Your task to perform on an android device: Open Yahoo.com Image 0: 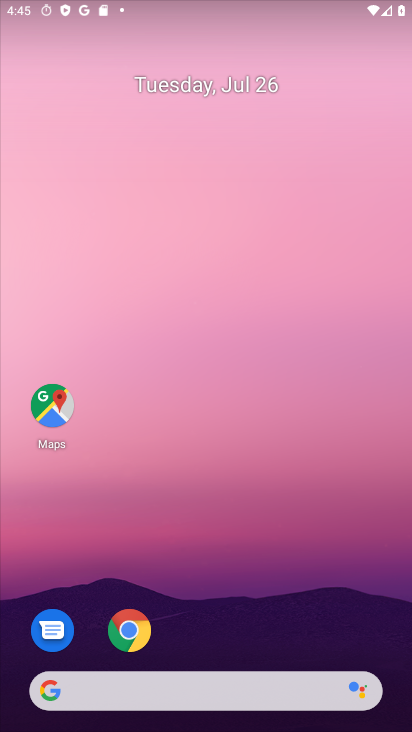
Step 0: drag from (305, 582) to (224, 50)
Your task to perform on an android device: Open Yahoo.com Image 1: 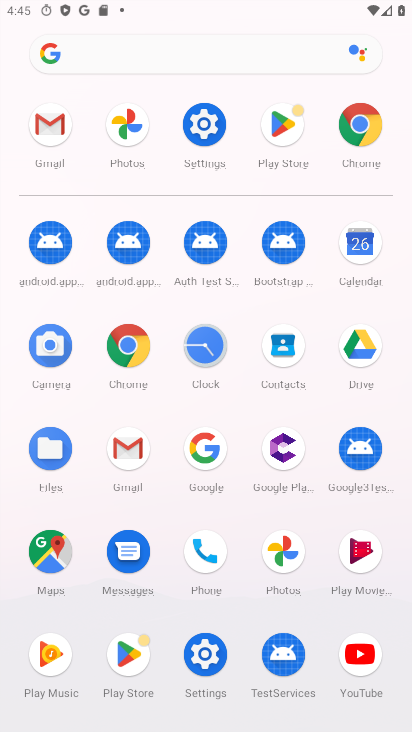
Step 1: click (358, 120)
Your task to perform on an android device: Open Yahoo.com Image 2: 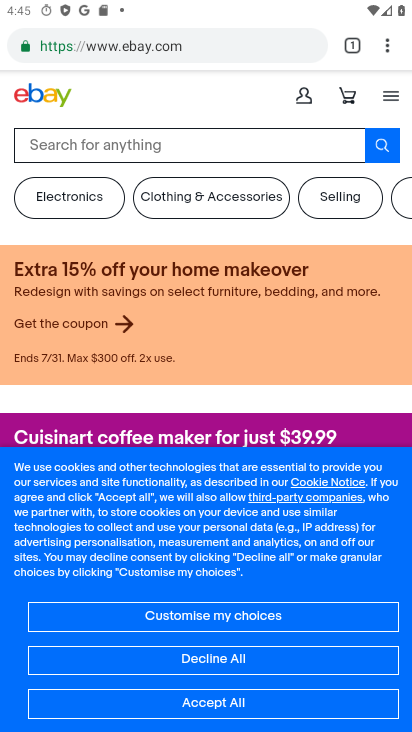
Step 2: click (188, 50)
Your task to perform on an android device: Open Yahoo.com Image 3: 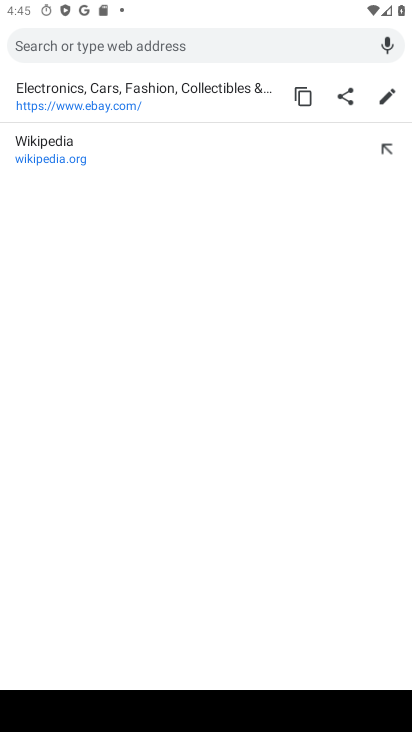
Step 3: type "yahoo.com"
Your task to perform on an android device: Open Yahoo.com Image 4: 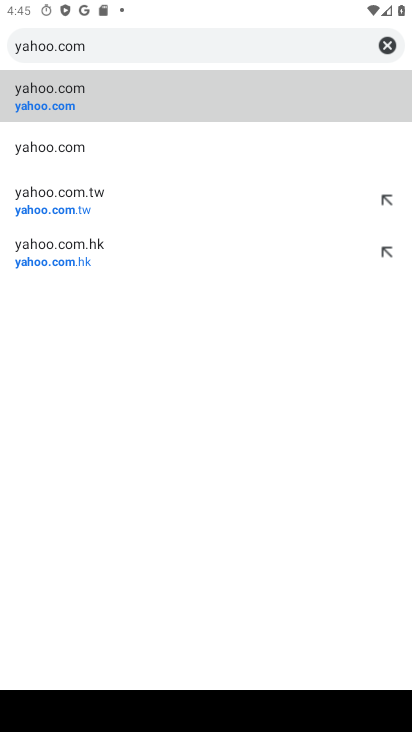
Step 4: click (64, 109)
Your task to perform on an android device: Open Yahoo.com Image 5: 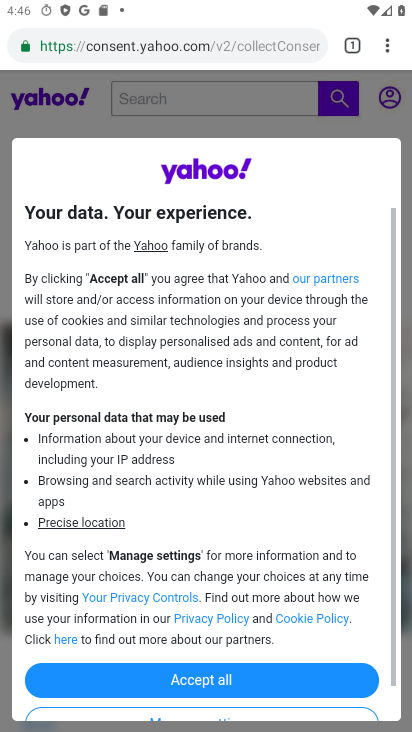
Step 5: task complete